Your task to perform on an android device: Open the web browser Image 0: 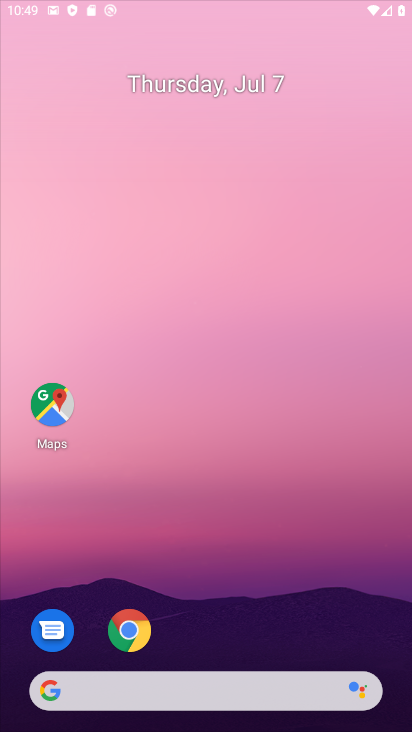
Step 0: drag from (370, 500) to (229, 46)
Your task to perform on an android device: Open the web browser Image 1: 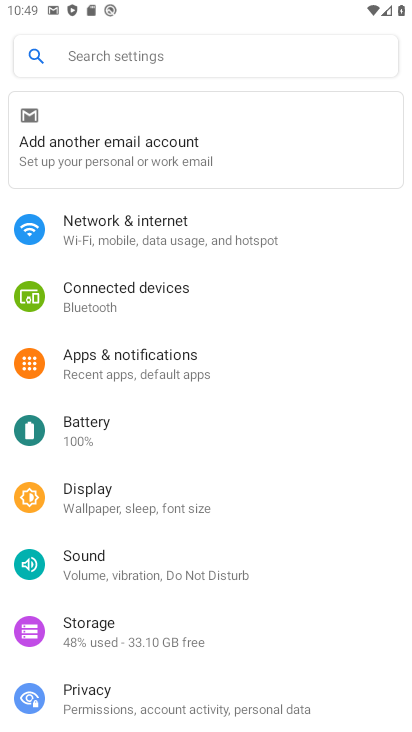
Step 1: press home button
Your task to perform on an android device: Open the web browser Image 2: 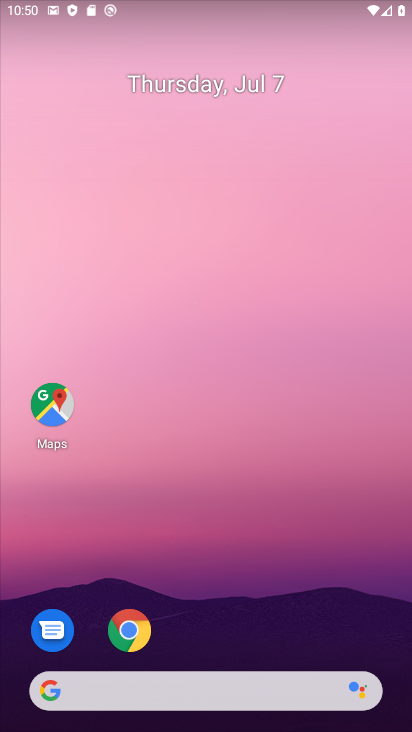
Step 2: drag from (395, 676) to (255, 7)
Your task to perform on an android device: Open the web browser Image 3: 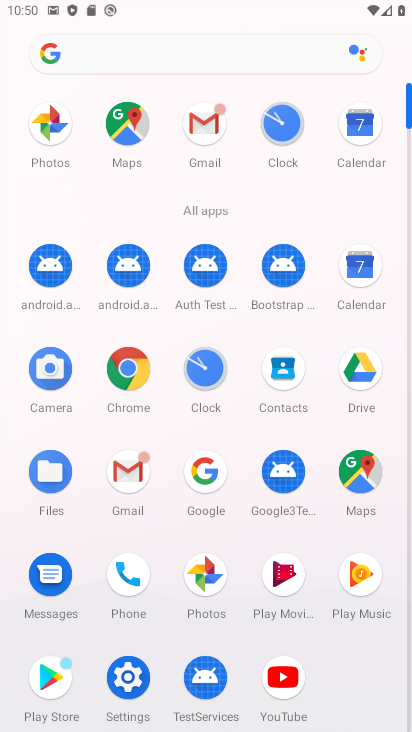
Step 3: click (222, 482)
Your task to perform on an android device: Open the web browser Image 4: 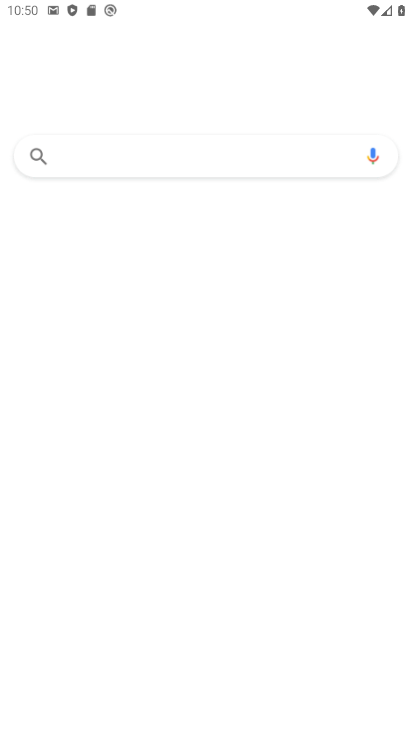
Step 4: click (151, 149)
Your task to perform on an android device: Open the web browser Image 5: 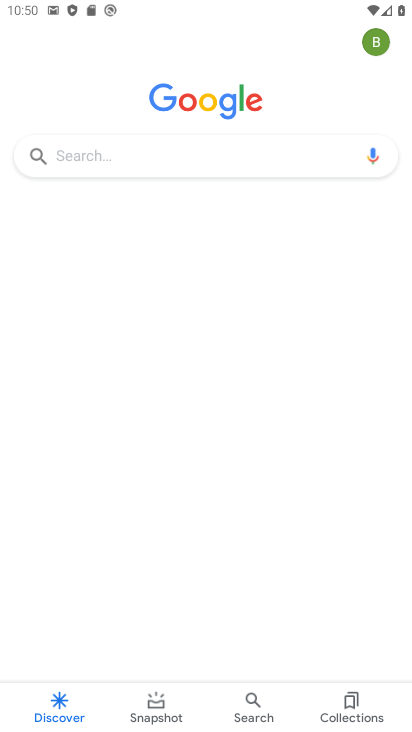
Step 5: click (181, 164)
Your task to perform on an android device: Open the web browser Image 6: 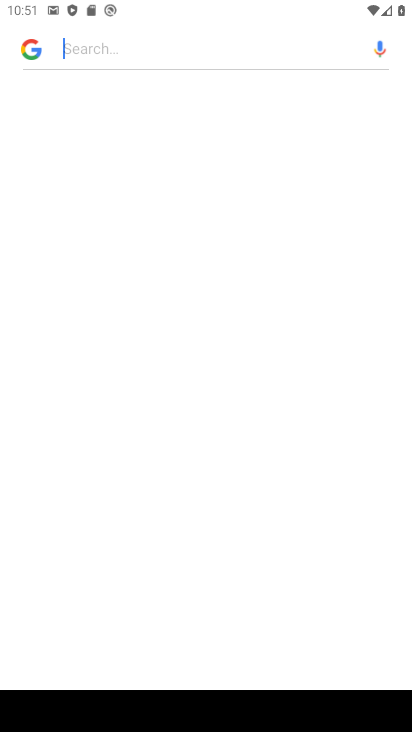
Step 6: type "web browser"
Your task to perform on an android device: Open the web browser Image 7: 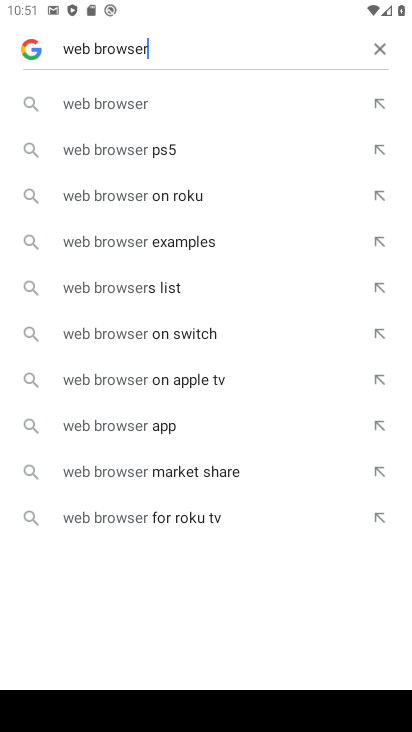
Step 7: click (109, 99)
Your task to perform on an android device: Open the web browser Image 8: 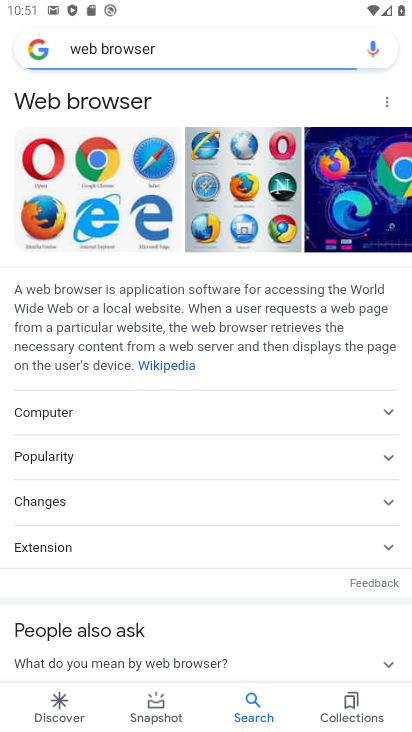
Step 8: task complete